Your task to perform on an android device: Search for "alienware aurora" on amazon.com, select the first entry, add it to the cart, then select checkout. Image 0: 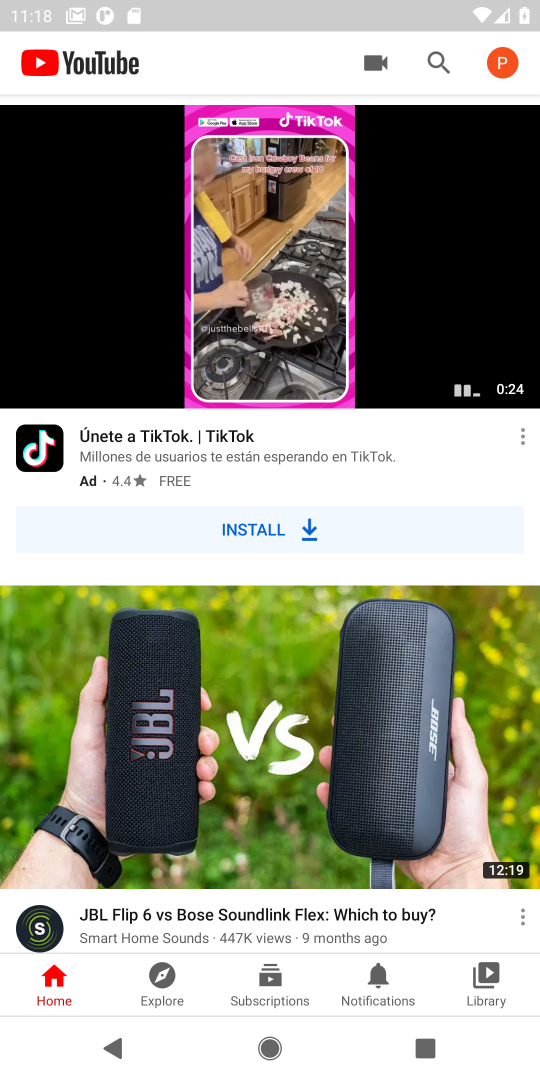
Step 0: press home button
Your task to perform on an android device: Search for "alienware aurora" on amazon.com, select the first entry, add it to the cart, then select checkout. Image 1: 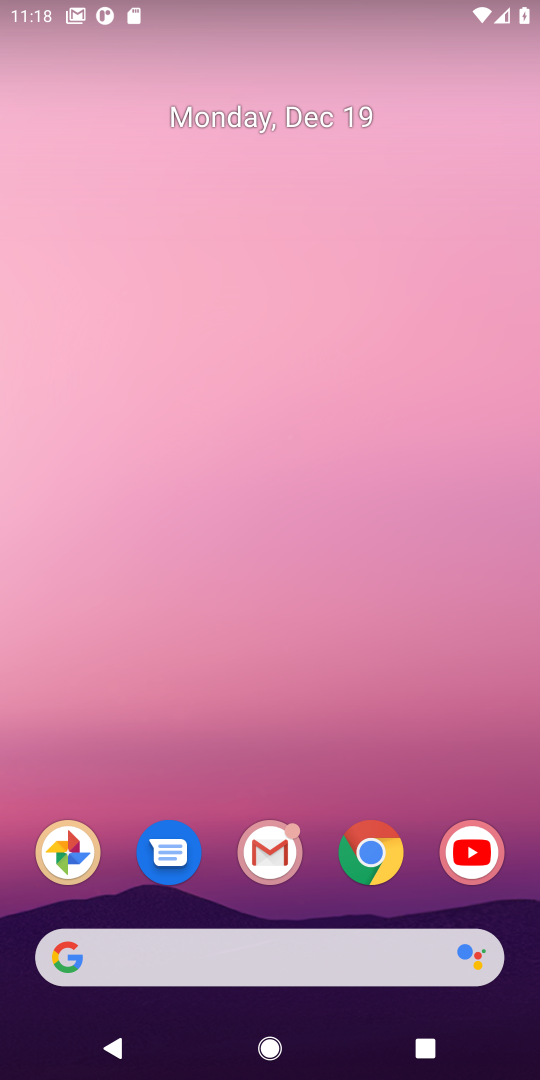
Step 1: click (378, 843)
Your task to perform on an android device: Search for "alienware aurora" on amazon.com, select the first entry, add it to the cart, then select checkout. Image 2: 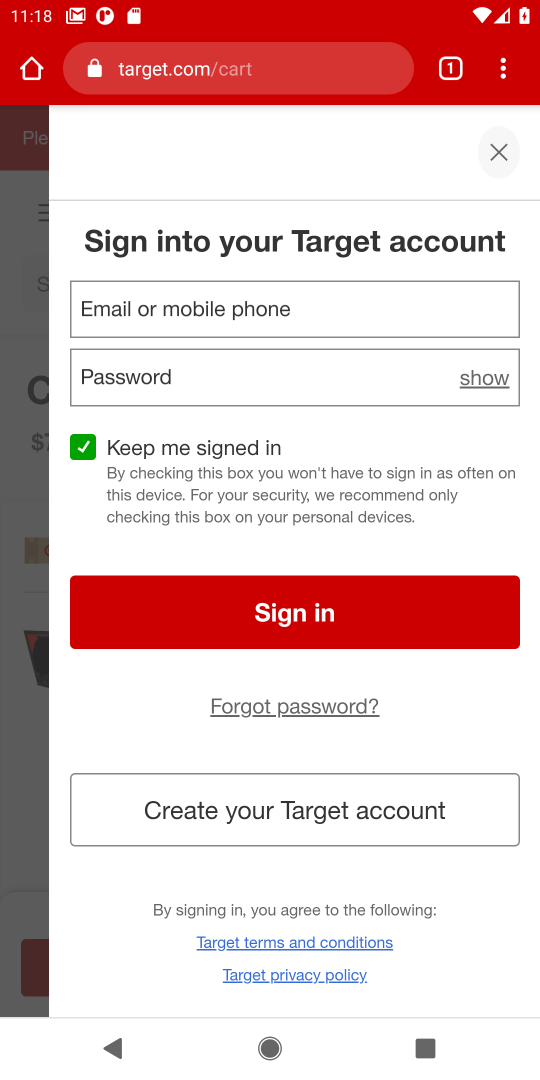
Step 2: click (183, 58)
Your task to perform on an android device: Search for "alienware aurora" on amazon.com, select the first entry, add it to the cart, then select checkout. Image 3: 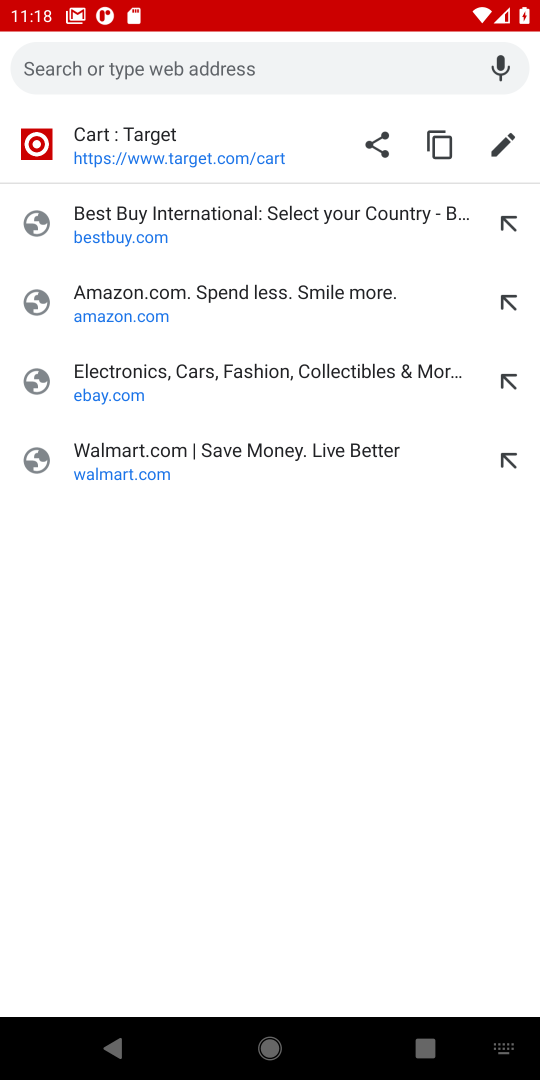
Step 3: click (93, 298)
Your task to perform on an android device: Search for "alienware aurora" on amazon.com, select the first entry, add it to the cart, then select checkout. Image 4: 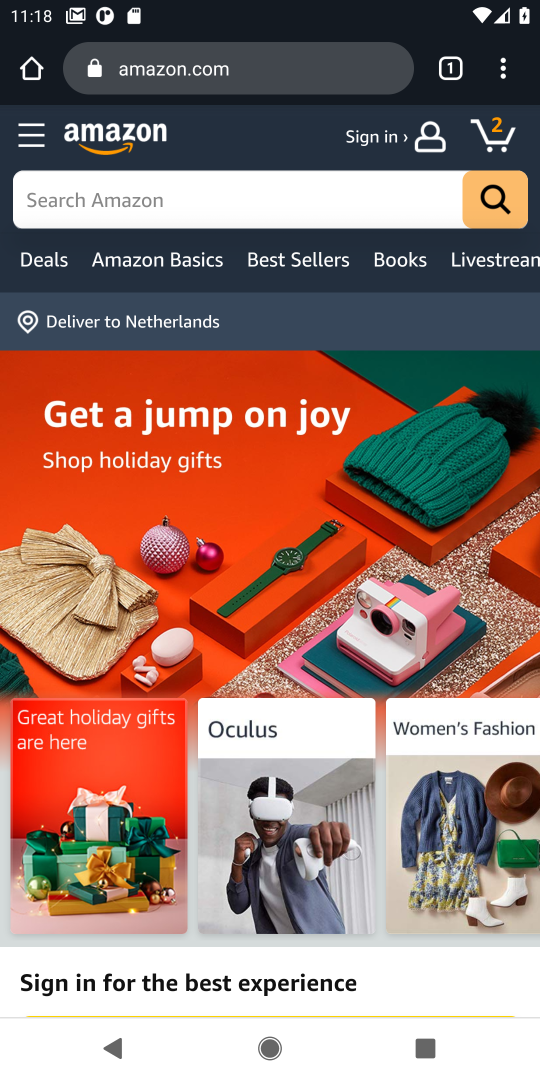
Step 4: click (115, 198)
Your task to perform on an android device: Search for "alienware aurora" on amazon.com, select the first entry, add it to the cart, then select checkout. Image 5: 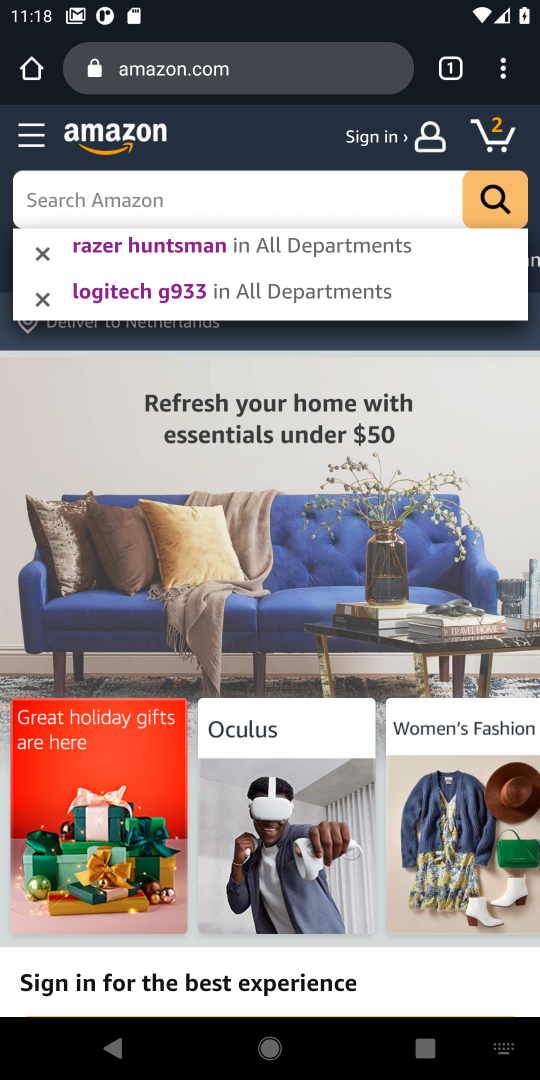
Step 5: type "alienware aurora"
Your task to perform on an android device: Search for "alienware aurora" on amazon.com, select the first entry, add it to the cart, then select checkout. Image 6: 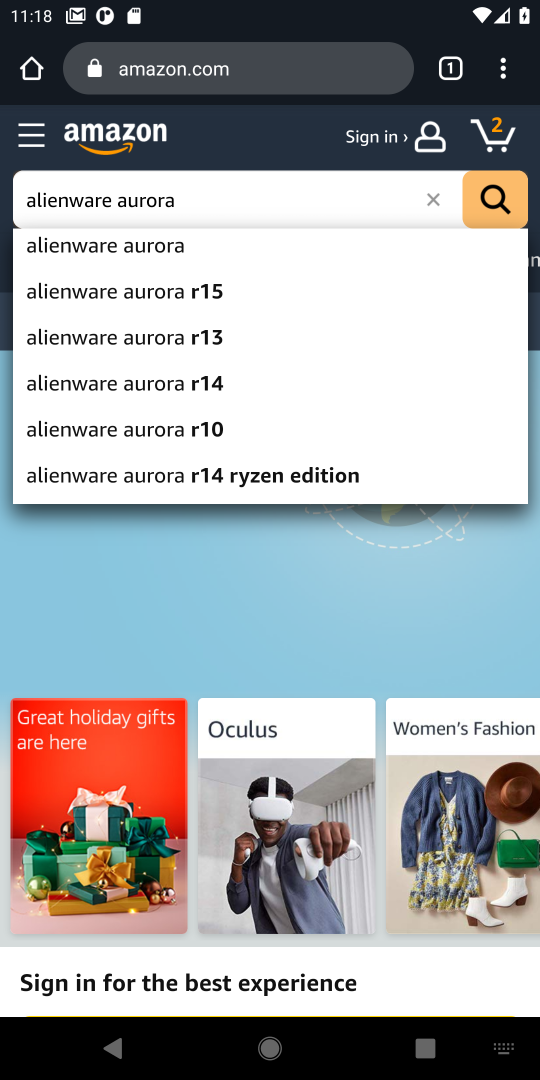
Step 6: click (88, 254)
Your task to perform on an android device: Search for "alienware aurora" on amazon.com, select the first entry, add it to the cart, then select checkout. Image 7: 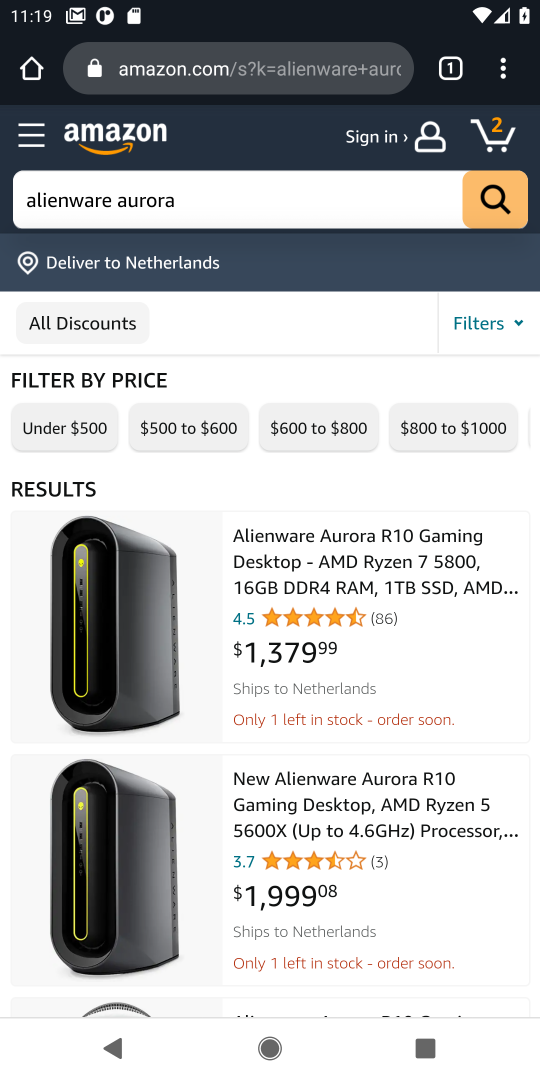
Step 7: click (360, 571)
Your task to perform on an android device: Search for "alienware aurora" on amazon.com, select the first entry, add it to the cart, then select checkout. Image 8: 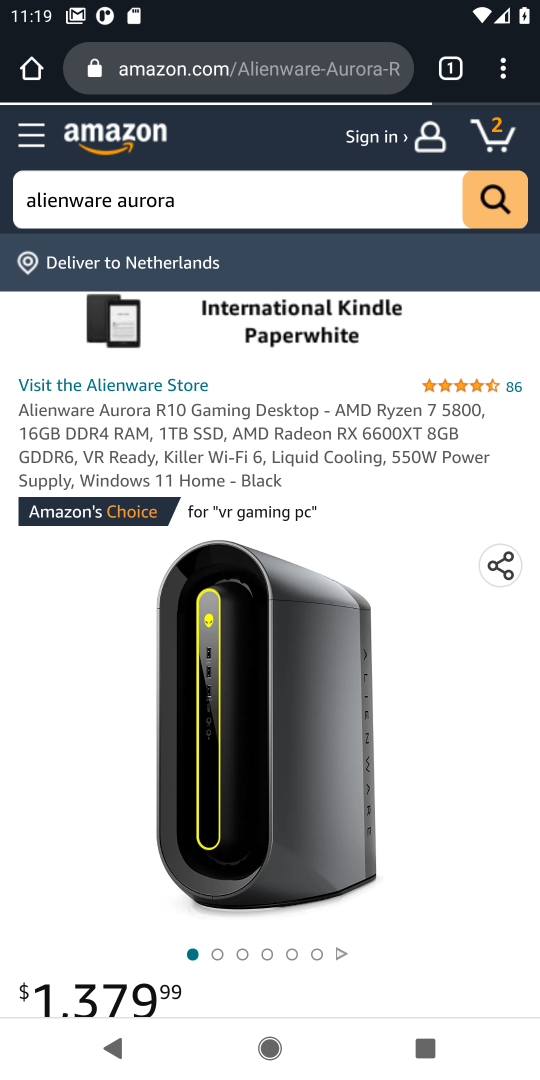
Step 8: drag from (303, 617) to (291, 298)
Your task to perform on an android device: Search for "alienware aurora" on amazon.com, select the first entry, add it to the cart, then select checkout. Image 9: 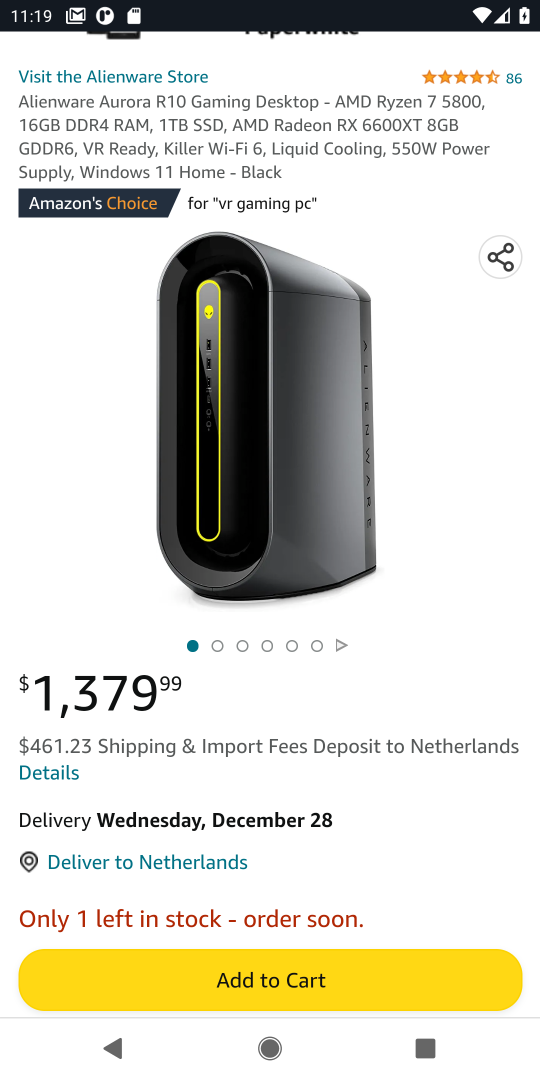
Step 9: drag from (281, 760) to (289, 361)
Your task to perform on an android device: Search for "alienware aurora" on amazon.com, select the first entry, add it to the cart, then select checkout. Image 10: 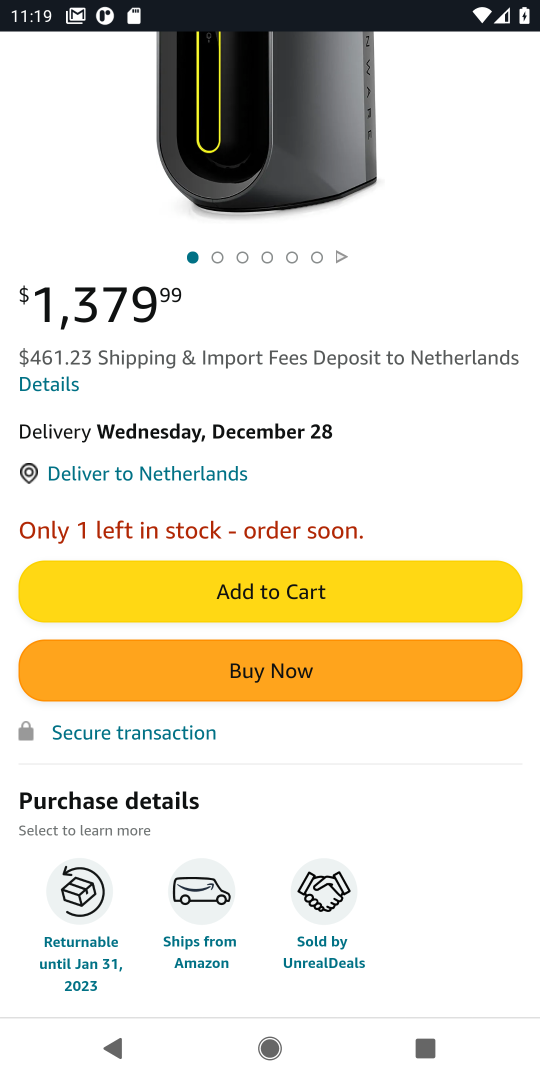
Step 10: click (249, 590)
Your task to perform on an android device: Search for "alienware aurora" on amazon.com, select the first entry, add it to the cart, then select checkout. Image 11: 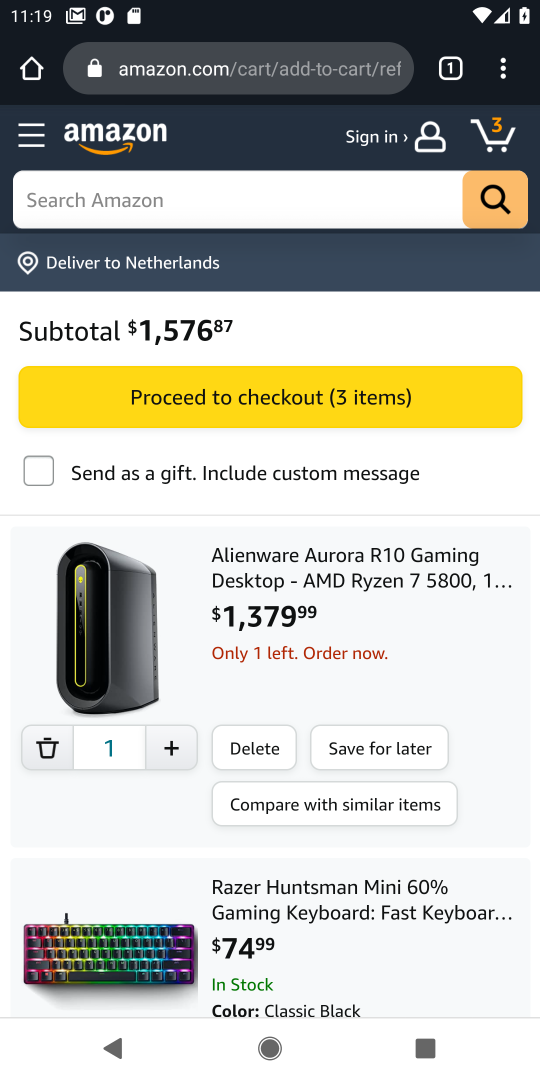
Step 11: click (228, 400)
Your task to perform on an android device: Search for "alienware aurora" on amazon.com, select the first entry, add it to the cart, then select checkout. Image 12: 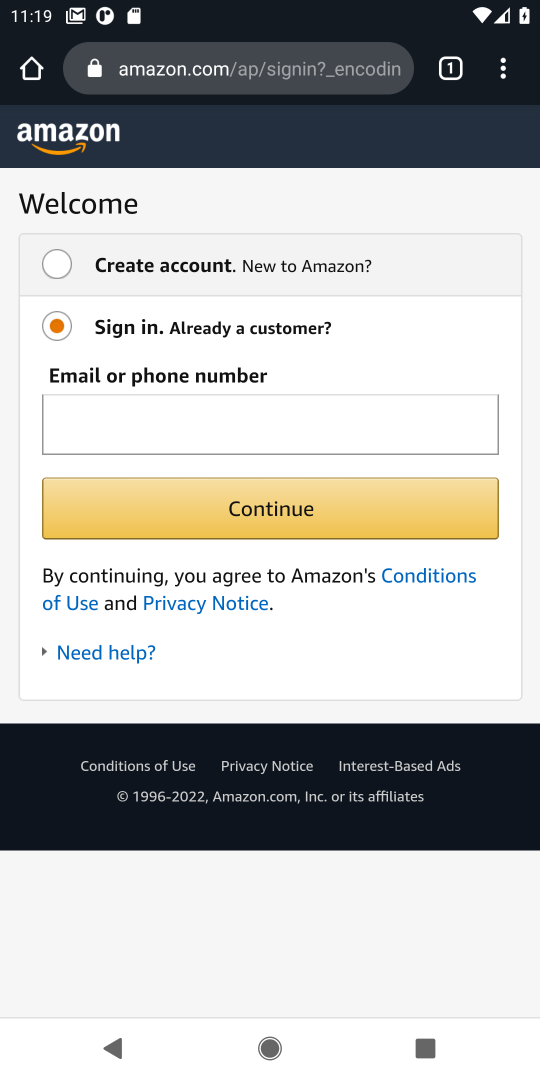
Step 12: task complete